Your task to perform on an android device: What's the weather going to be tomorrow? Image 0: 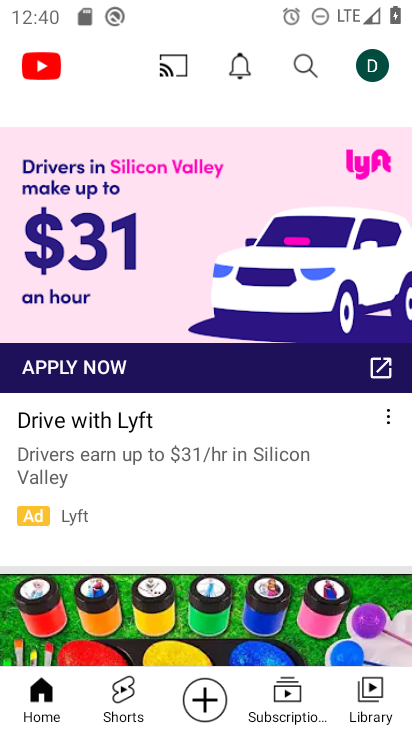
Step 0: press home button
Your task to perform on an android device: What's the weather going to be tomorrow? Image 1: 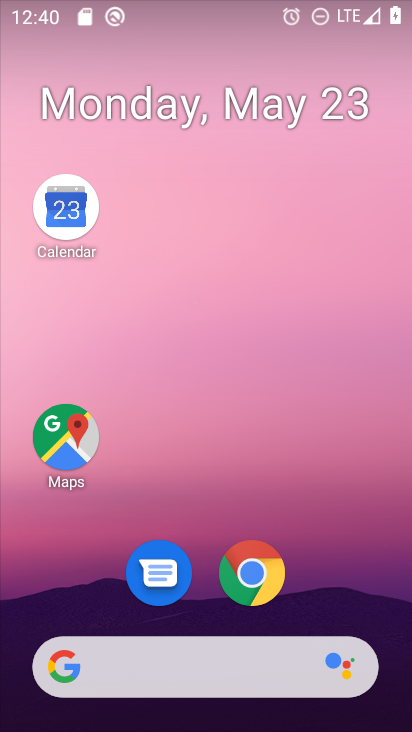
Step 1: click (132, 663)
Your task to perform on an android device: What's the weather going to be tomorrow? Image 2: 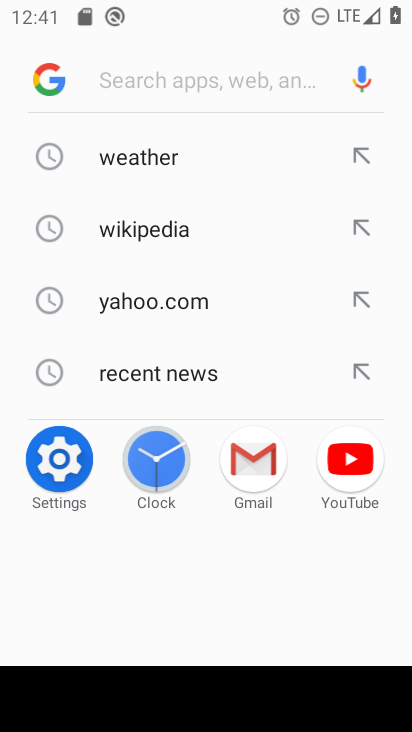
Step 2: type "what's the weather going to be tomorrow"
Your task to perform on an android device: What's the weather going to be tomorrow? Image 3: 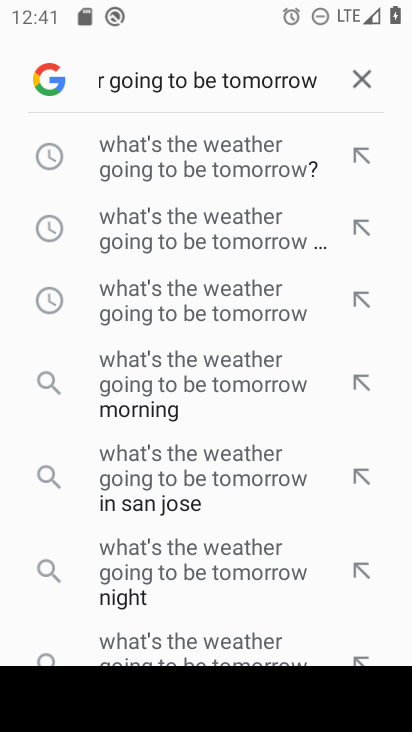
Step 3: click (233, 150)
Your task to perform on an android device: What's the weather going to be tomorrow? Image 4: 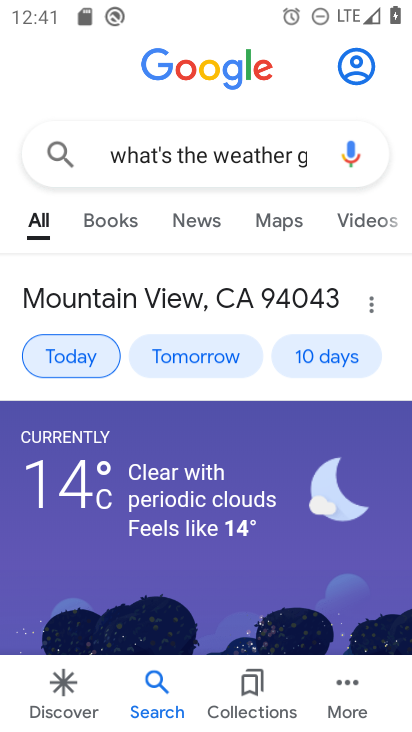
Step 4: task complete